Your task to perform on an android device: Show me recent news Image 0: 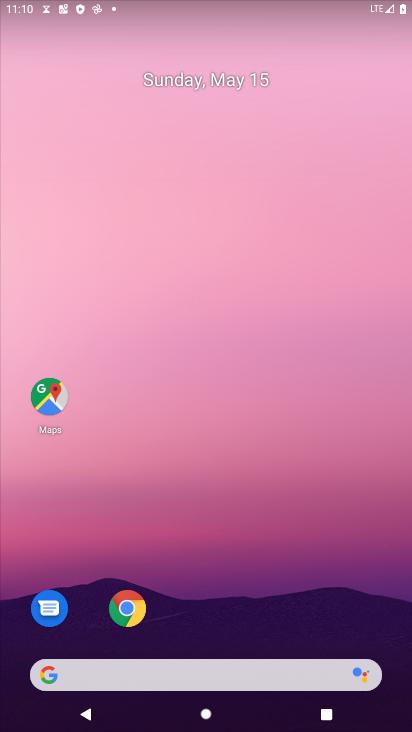
Step 0: drag from (311, 526) to (349, 92)
Your task to perform on an android device: Show me recent news Image 1: 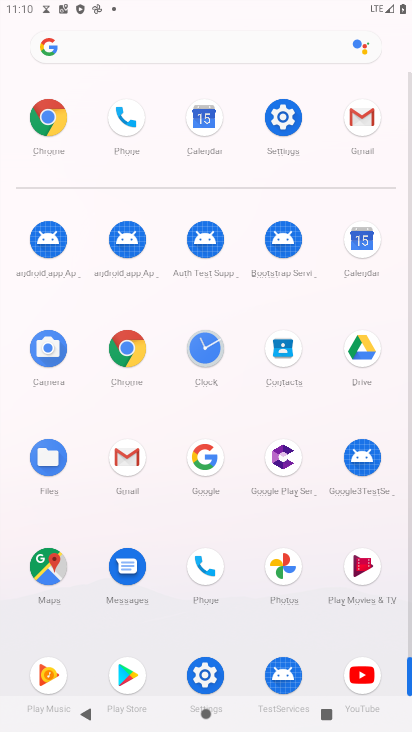
Step 1: click (38, 116)
Your task to perform on an android device: Show me recent news Image 2: 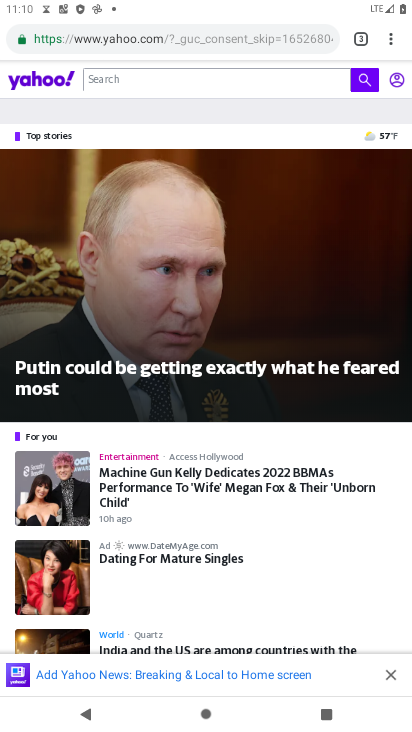
Step 2: task complete